Your task to perform on an android device: turn on bluetooth scan Image 0: 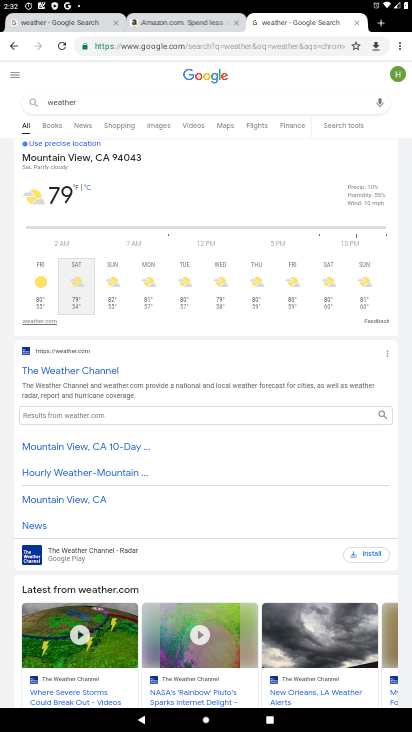
Step 0: click (401, 46)
Your task to perform on an android device: turn on bluetooth scan Image 1: 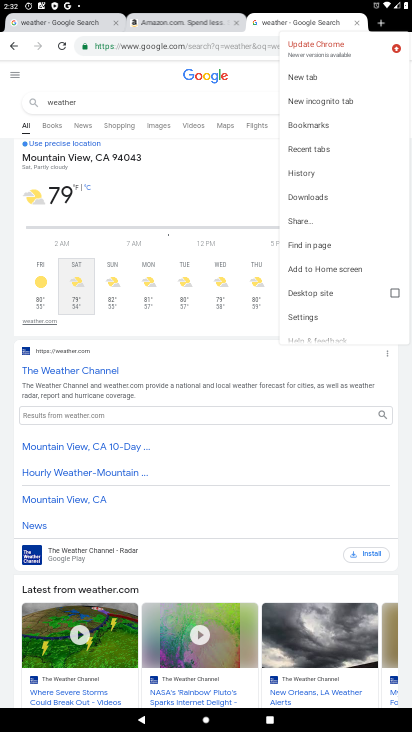
Step 1: click (307, 319)
Your task to perform on an android device: turn on bluetooth scan Image 2: 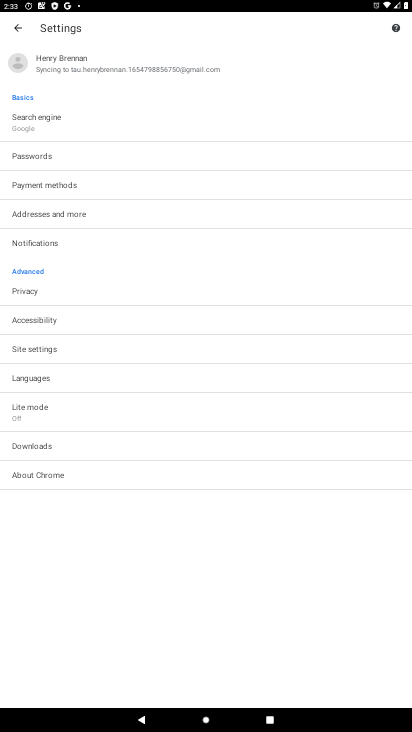
Step 2: press home button
Your task to perform on an android device: turn on bluetooth scan Image 3: 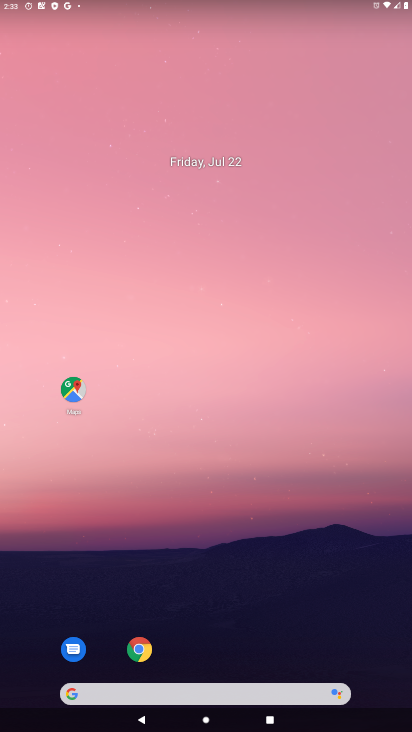
Step 3: drag from (253, 566) to (268, 57)
Your task to perform on an android device: turn on bluetooth scan Image 4: 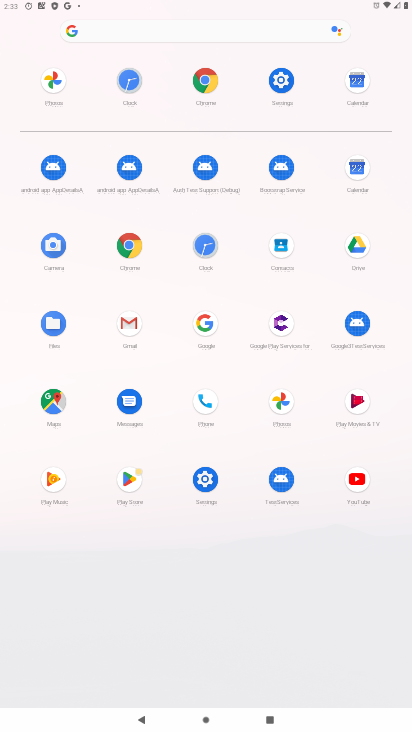
Step 4: click (283, 69)
Your task to perform on an android device: turn on bluetooth scan Image 5: 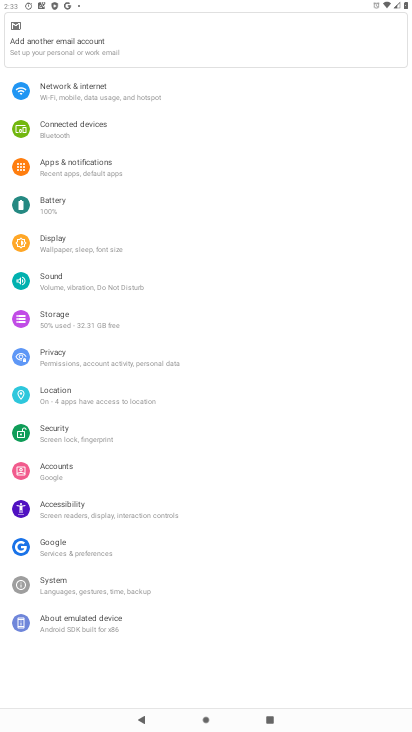
Step 5: click (61, 401)
Your task to perform on an android device: turn on bluetooth scan Image 6: 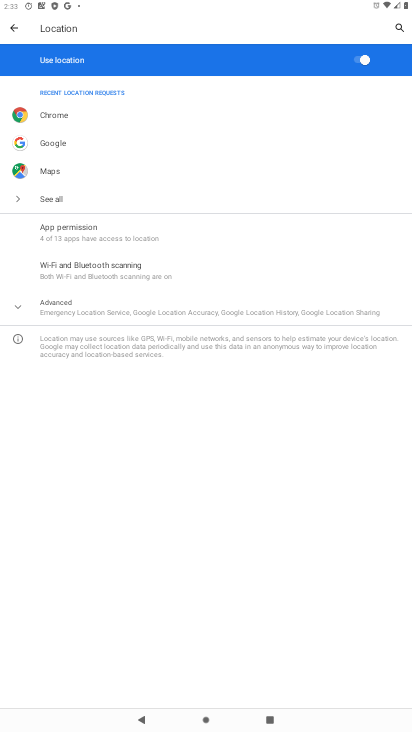
Step 6: click (86, 298)
Your task to perform on an android device: turn on bluetooth scan Image 7: 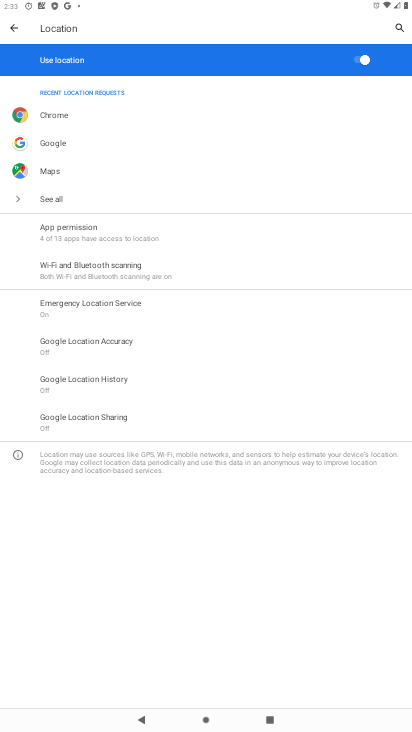
Step 7: click (83, 269)
Your task to perform on an android device: turn on bluetooth scan Image 8: 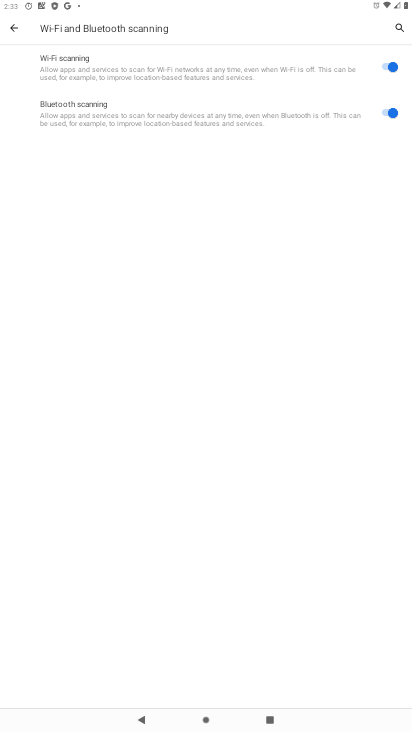
Step 8: task complete